Your task to perform on an android device: Find coffee shops on Maps Image 0: 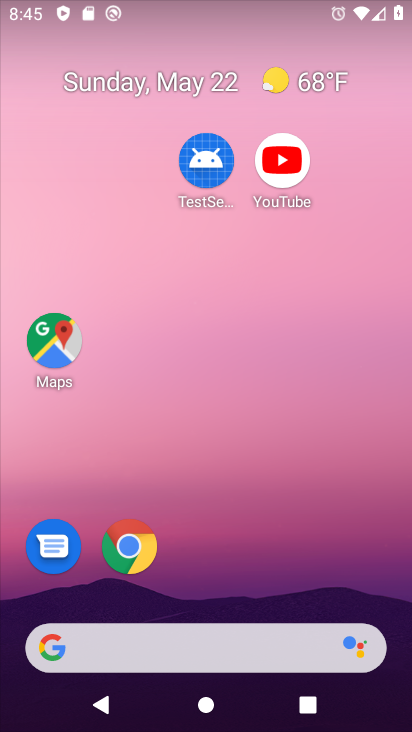
Step 0: drag from (259, 709) to (120, 133)
Your task to perform on an android device: Find coffee shops on Maps Image 1: 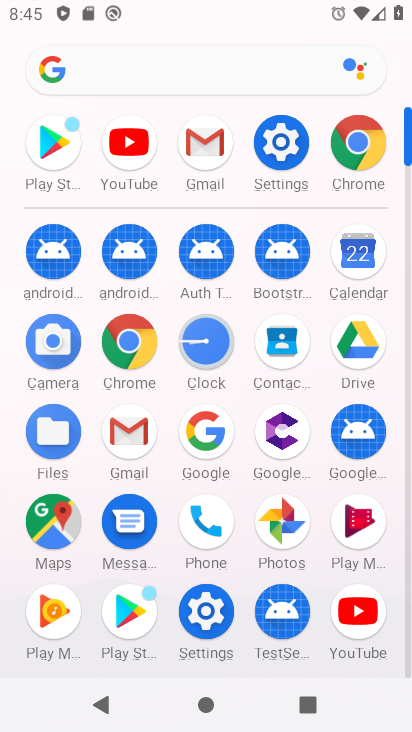
Step 1: click (43, 532)
Your task to perform on an android device: Find coffee shops on Maps Image 2: 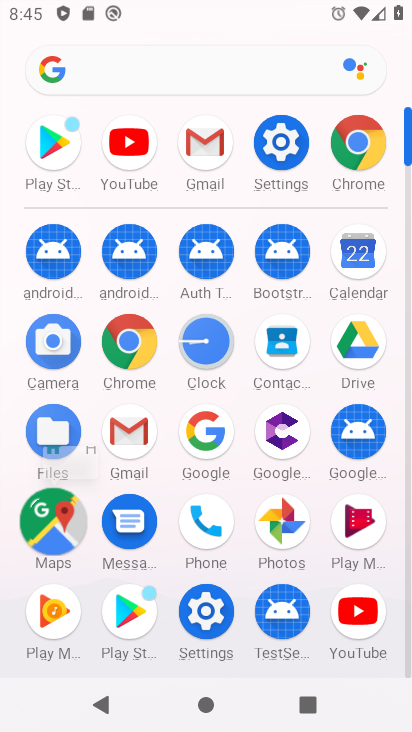
Step 2: click (43, 529)
Your task to perform on an android device: Find coffee shops on Maps Image 3: 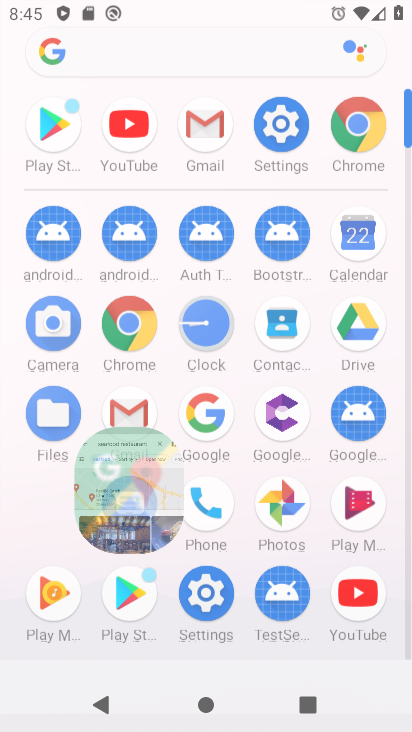
Step 3: click (31, 530)
Your task to perform on an android device: Find coffee shops on Maps Image 4: 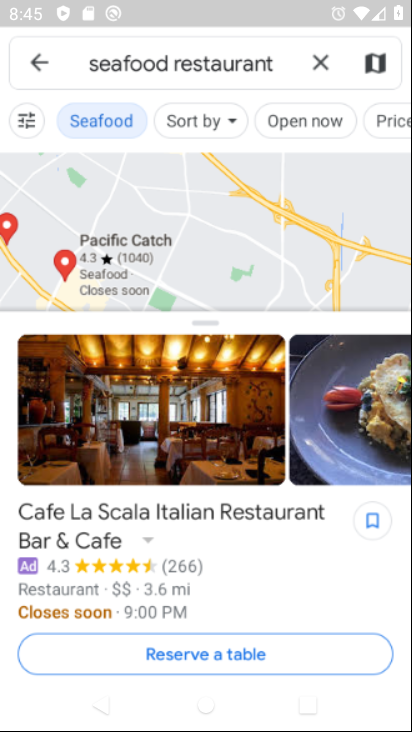
Step 4: click (33, 527)
Your task to perform on an android device: Find coffee shops on Maps Image 5: 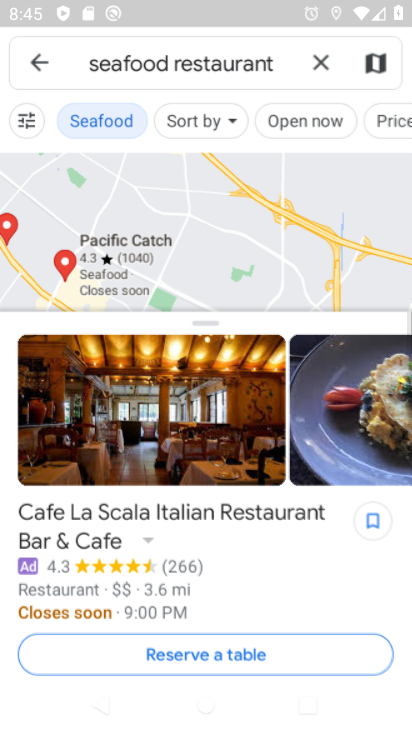
Step 5: click (51, 68)
Your task to perform on an android device: Find coffee shops on Maps Image 6: 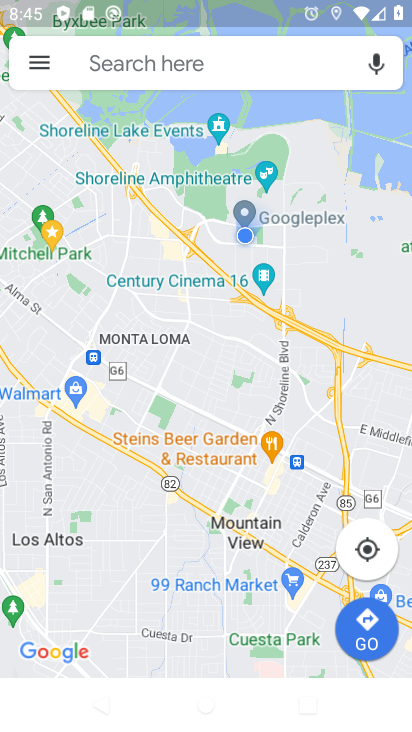
Step 6: click (114, 48)
Your task to perform on an android device: Find coffee shops on Maps Image 7: 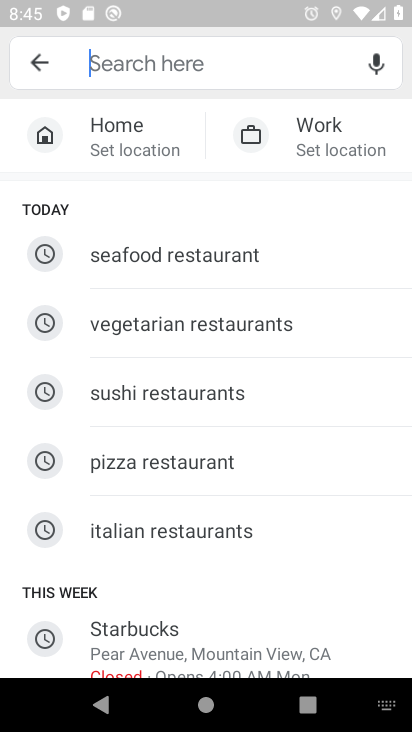
Step 7: type "coffee"
Your task to perform on an android device: Find coffee shops on Maps Image 8: 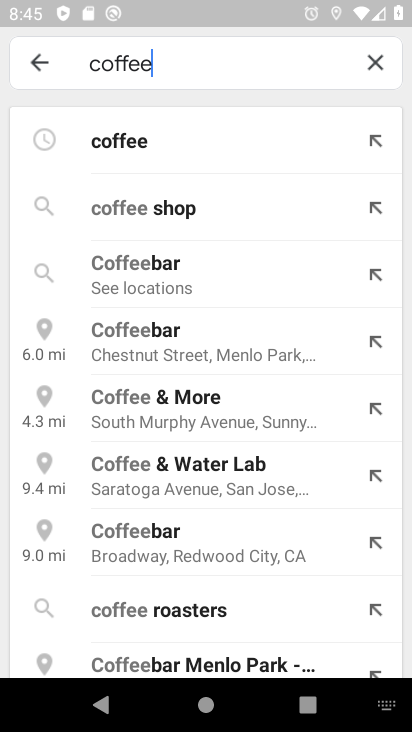
Step 8: click (110, 140)
Your task to perform on an android device: Find coffee shops on Maps Image 9: 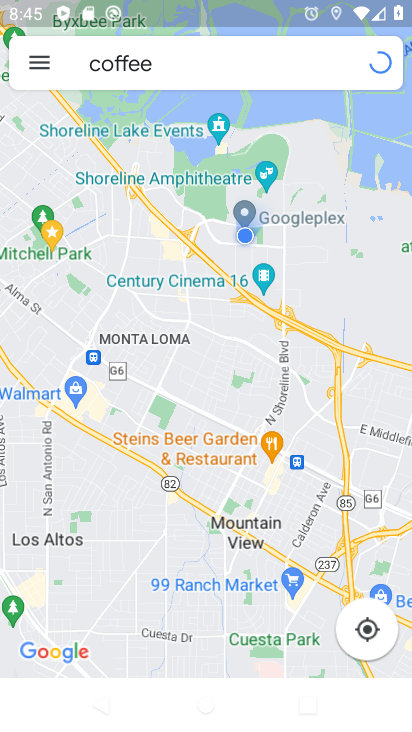
Step 9: task complete